Your task to perform on an android device: turn off translation in the chrome app Image 0: 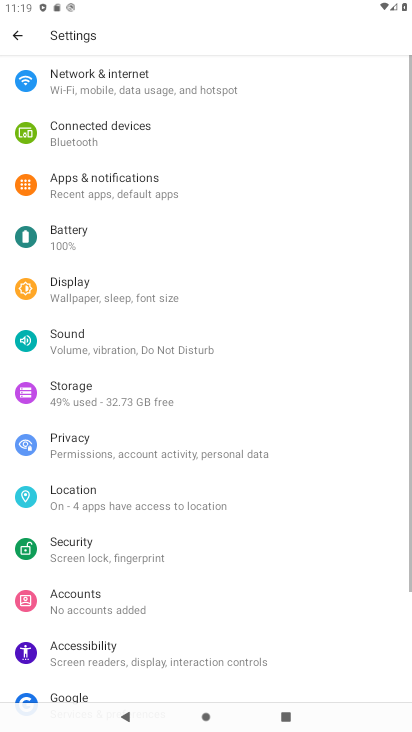
Step 0: press home button
Your task to perform on an android device: turn off translation in the chrome app Image 1: 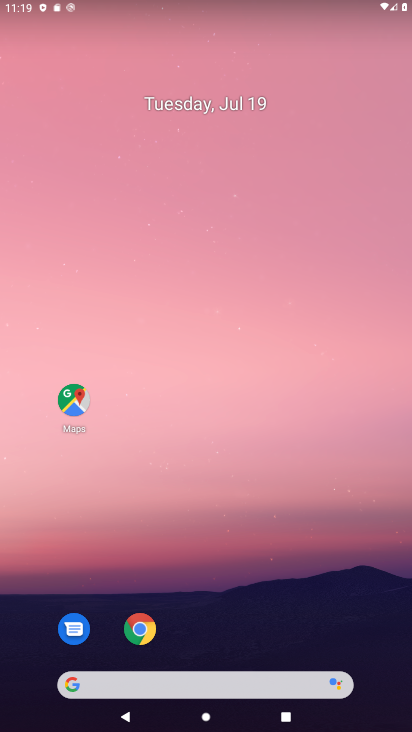
Step 1: drag from (351, 615) to (344, 82)
Your task to perform on an android device: turn off translation in the chrome app Image 2: 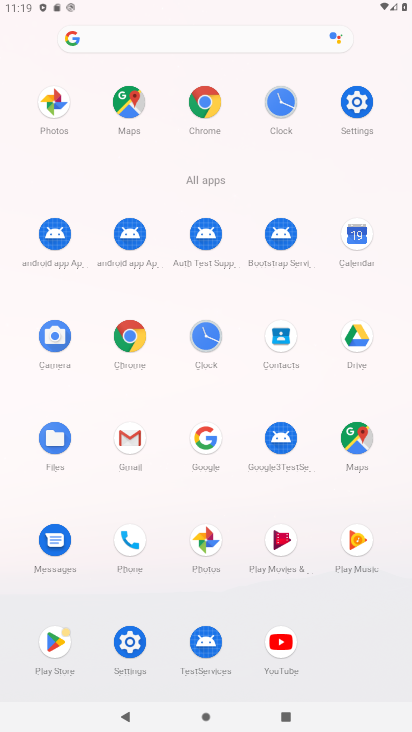
Step 2: click (129, 338)
Your task to perform on an android device: turn off translation in the chrome app Image 3: 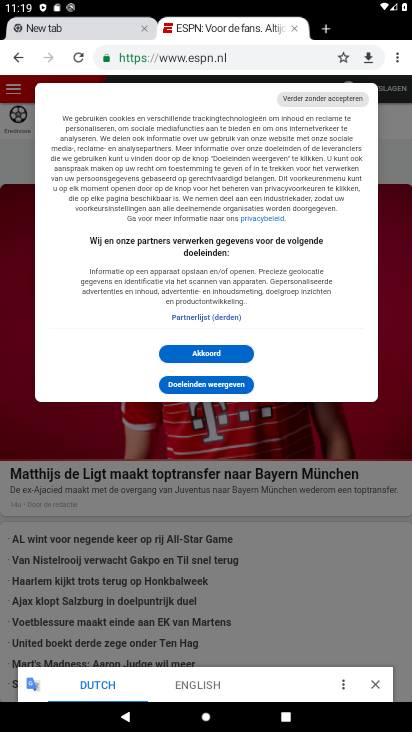
Step 3: click (399, 61)
Your task to perform on an android device: turn off translation in the chrome app Image 4: 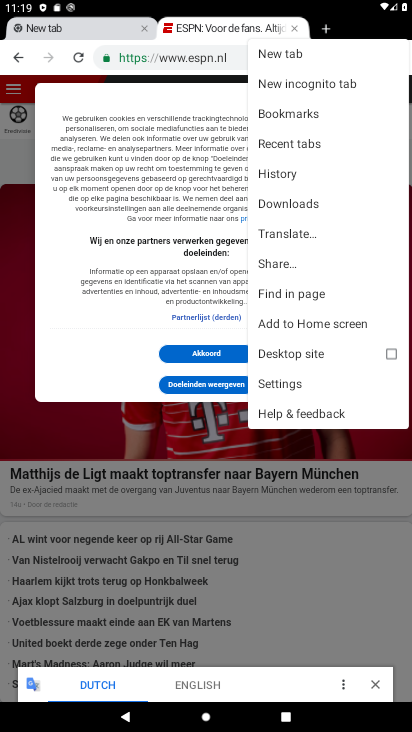
Step 4: click (300, 387)
Your task to perform on an android device: turn off translation in the chrome app Image 5: 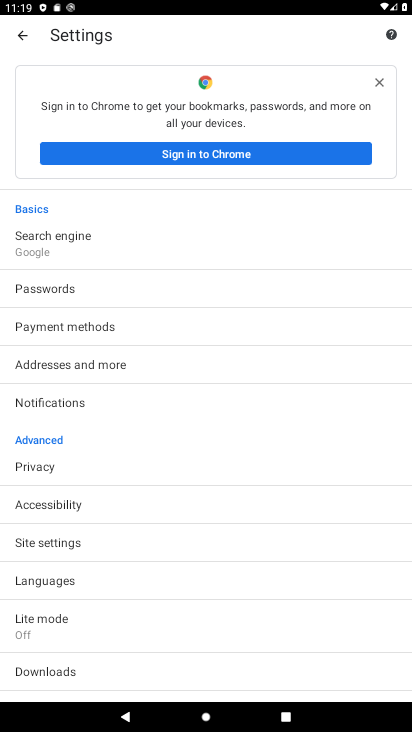
Step 5: drag from (327, 468) to (321, 346)
Your task to perform on an android device: turn off translation in the chrome app Image 6: 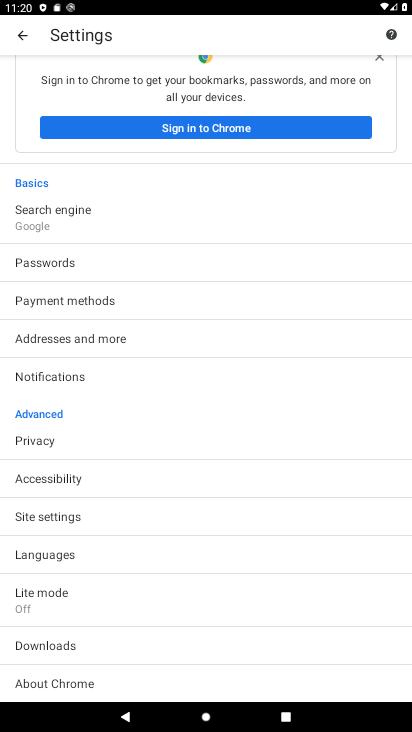
Step 6: drag from (318, 447) to (324, 266)
Your task to perform on an android device: turn off translation in the chrome app Image 7: 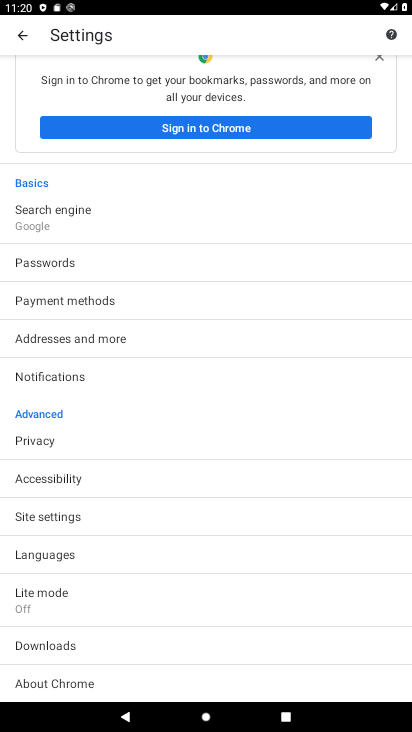
Step 7: drag from (338, 414) to (331, 270)
Your task to perform on an android device: turn off translation in the chrome app Image 8: 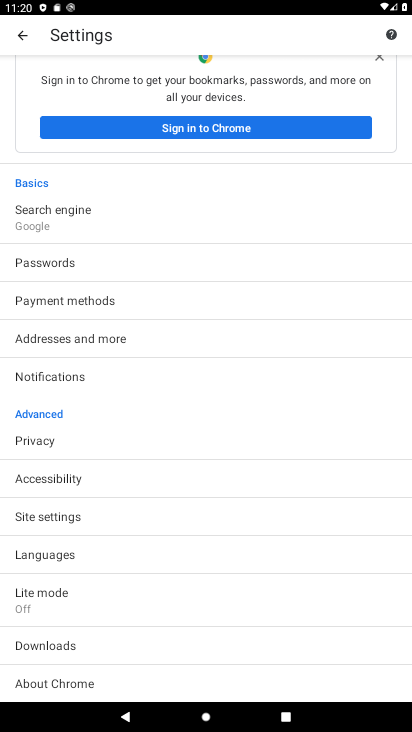
Step 8: drag from (313, 368) to (318, 245)
Your task to perform on an android device: turn off translation in the chrome app Image 9: 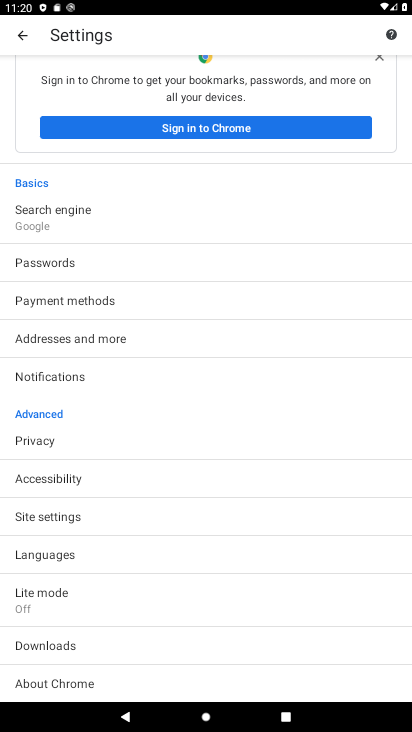
Step 9: drag from (322, 233) to (331, 400)
Your task to perform on an android device: turn off translation in the chrome app Image 10: 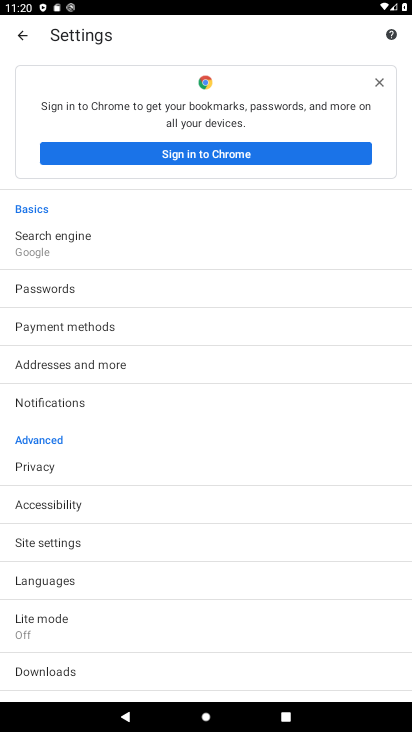
Step 10: drag from (330, 291) to (328, 449)
Your task to perform on an android device: turn off translation in the chrome app Image 11: 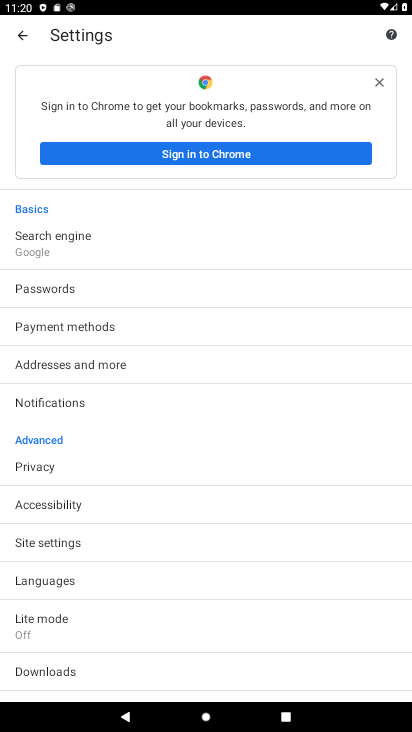
Step 11: drag from (313, 472) to (313, 344)
Your task to perform on an android device: turn off translation in the chrome app Image 12: 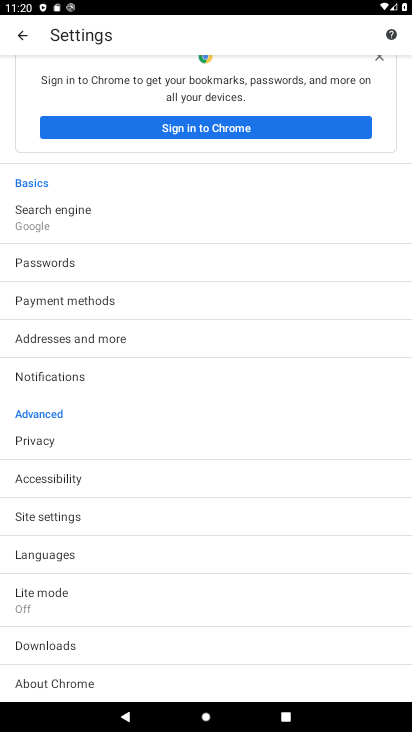
Step 12: click (140, 546)
Your task to perform on an android device: turn off translation in the chrome app Image 13: 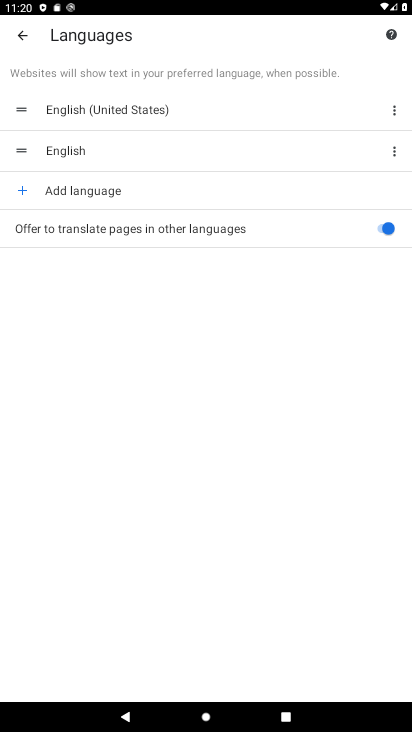
Step 13: click (384, 229)
Your task to perform on an android device: turn off translation in the chrome app Image 14: 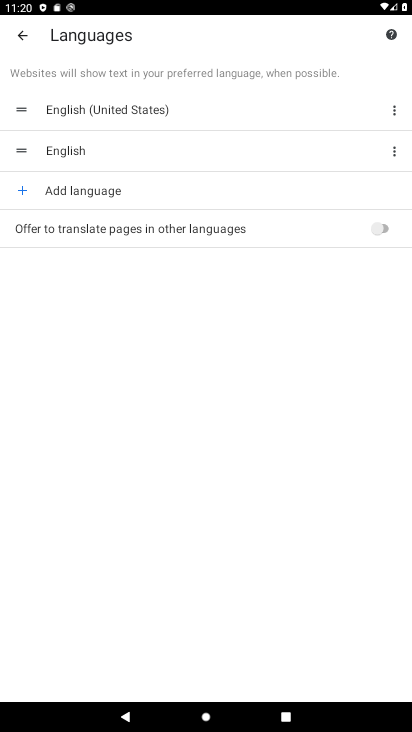
Step 14: task complete